Your task to perform on an android device: check data usage Image 0: 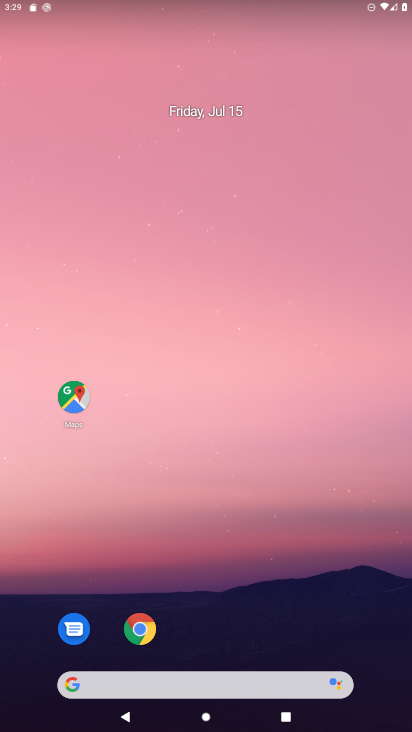
Step 0: drag from (292, 496) to (348, 3)
Your task to perform on an android device: check data usage Image 1: 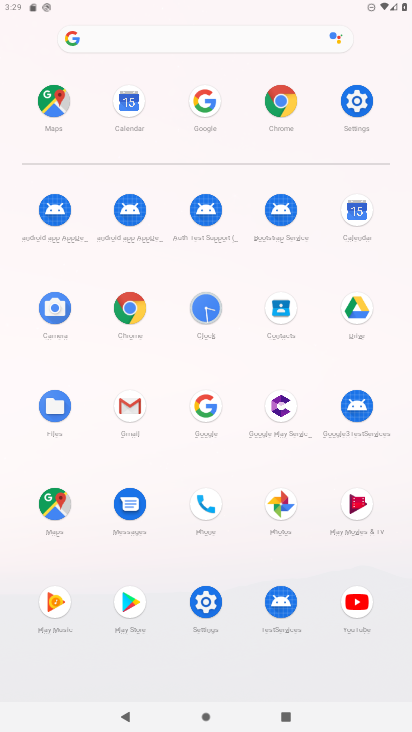
Step 1: click (363, 103)
Your task to perform on an android device: check data usage Image 2: 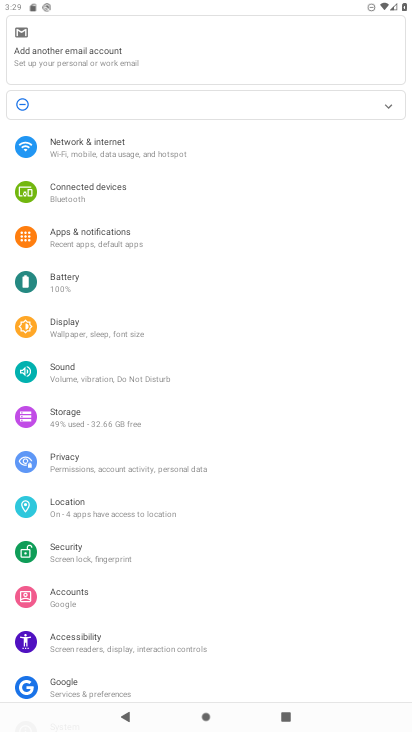
Step 2: click (118, 157)
Your task to perform on an android device: check data usage Image 3: 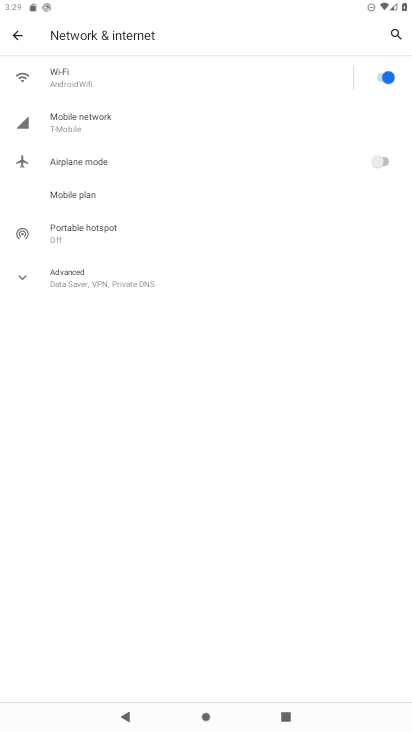
Step 3: click (82, 128)
Your task to perform on an android device: check data usage Image 4: 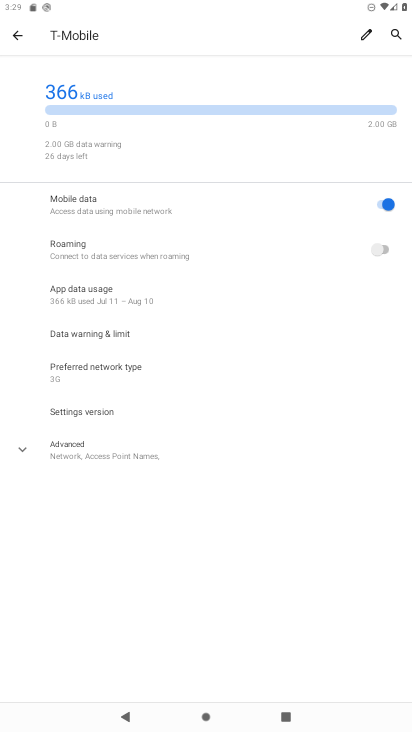
Step 4: task complete